Your task to perform on an android device: Open Youtube and go to the subscriptions tab Image 0: 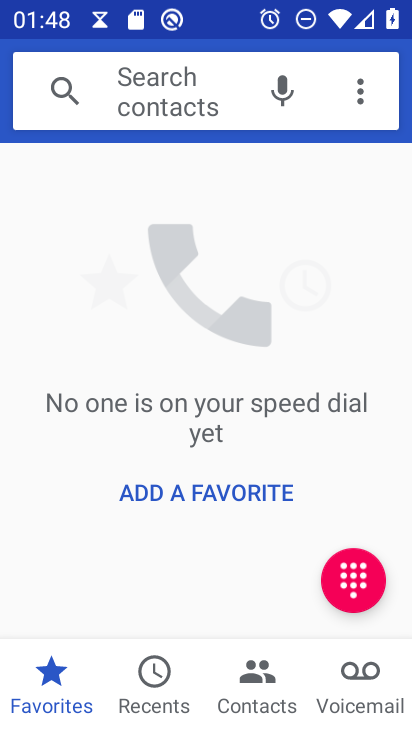
Step 0: press home button
Your task to perform on an android device: Open Youtube and go to the subscriptions tab Image 1: 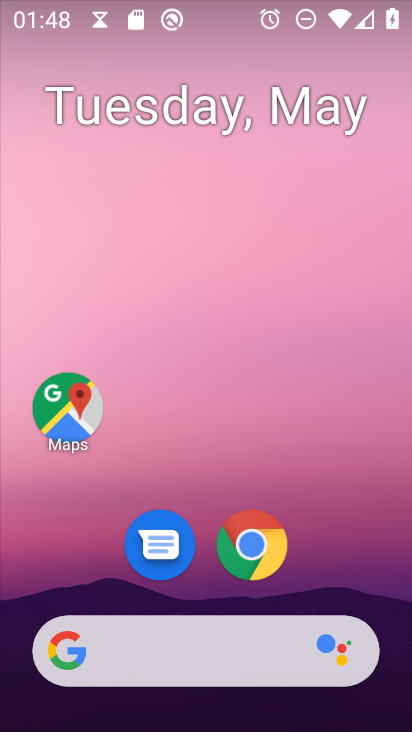
Step 1: drag from (313, 539) to (315, 67)
Your task to perform on an android device: Open Youtube and go to the subscriptions tab Image 2: 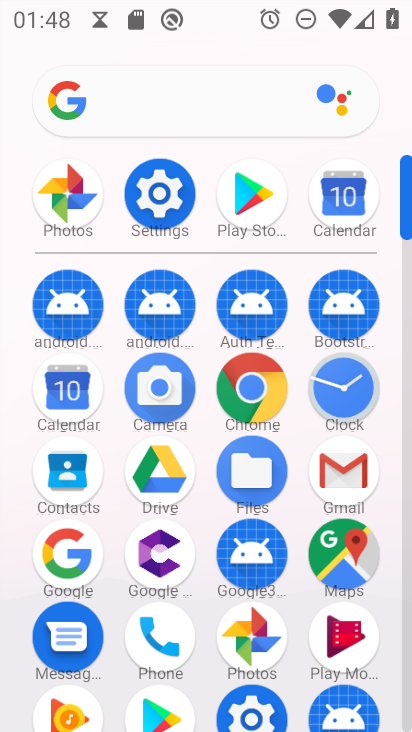
Step 2: drag from (266, 634) to (279, 169)
Your task to perform on an android device: Open Youtube and go to the subscriptions tab Image 3: 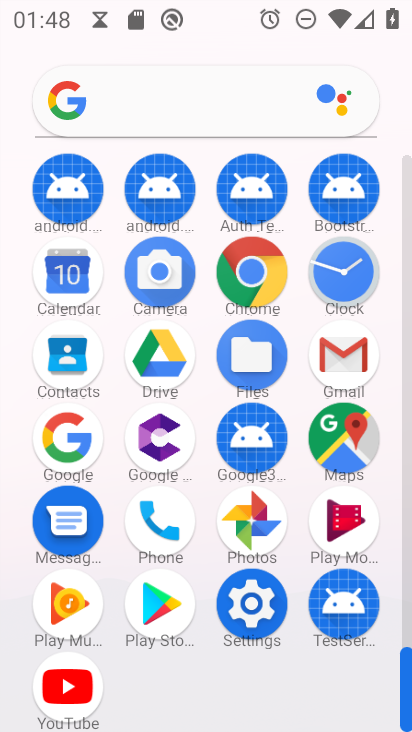
Step 3: click (57, 688)
Your task to perform on an android device: Open Youtube and go to the subscriptions tab Image 4: 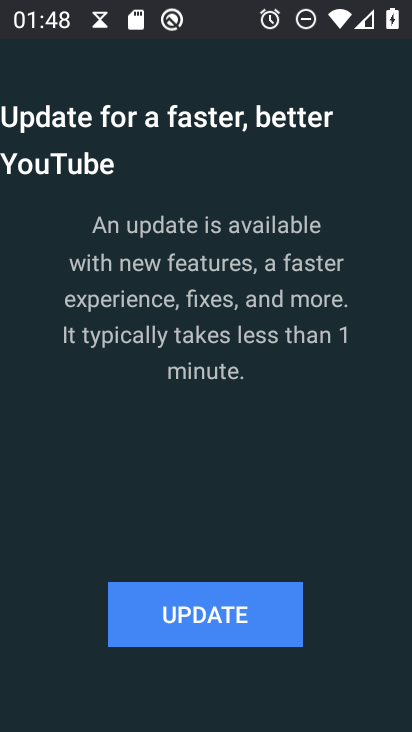
Step 4: click (230, 635)
Your task to perform on an android device: Open Youtube and go to the subscriptions tab Image 5: 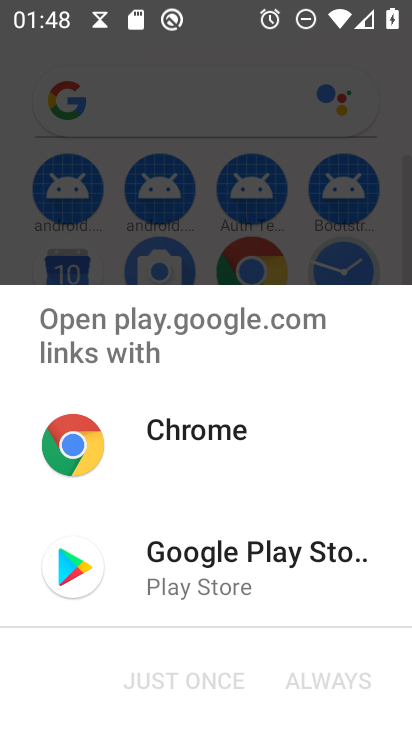
Step 5: click (187, 539)
Your task to perform on an android device: Open Youtube and go to the subscriptions tab Image 6: 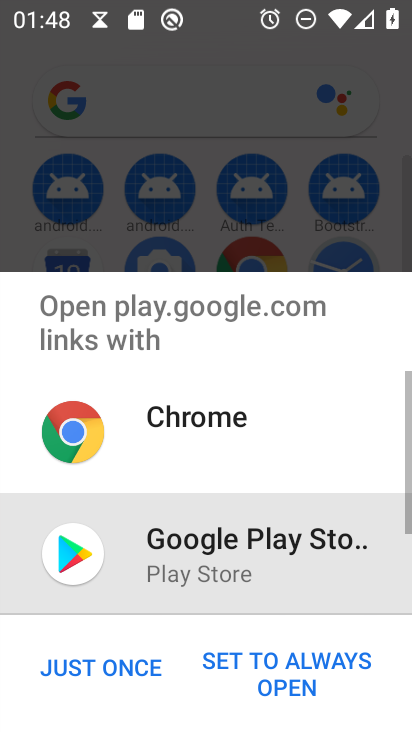
Step 6: click (106, 665)
Your task to perform on an android device: Open Youtube and go to the subscriptions tab Image 7: 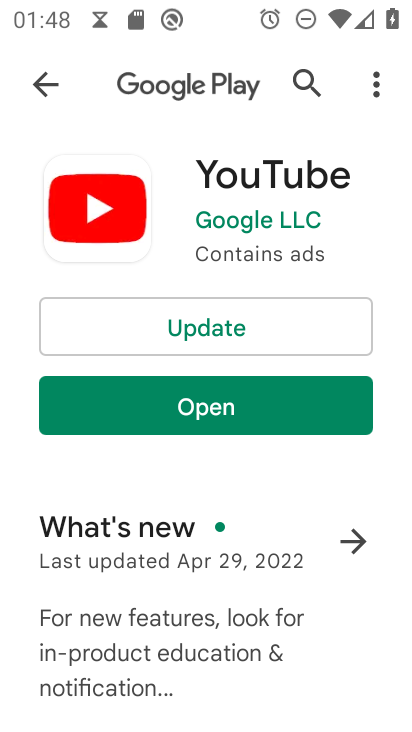
Step 7: click (215, 318)
Your task to perform on an android device: Open Youtube and go to the subscriptions tab Image 8: 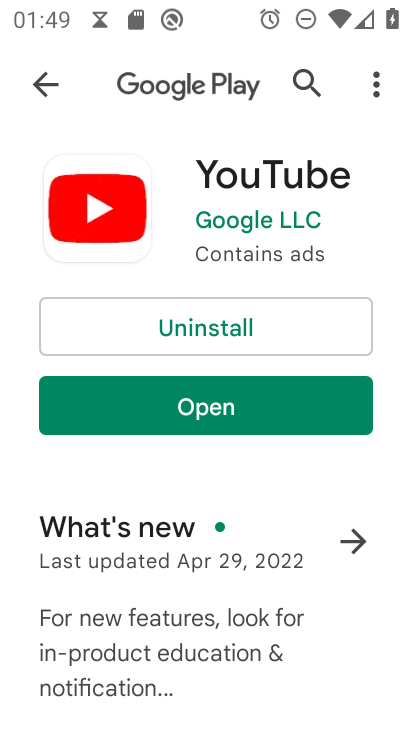
Step 8: click (138, 419)
Your task to perform on an android device: Open Youtube and go to the subscriptions tab Image 9: 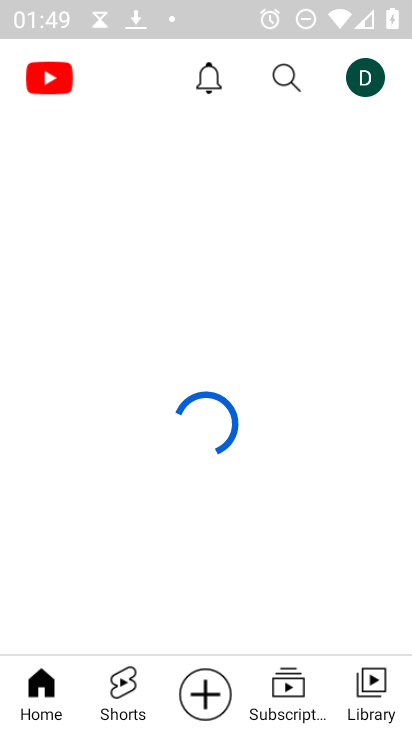
Step 9: click (289, 701)
Your task to perform on an android device: Open Youtube and go to the subscriptions tab Image 10: 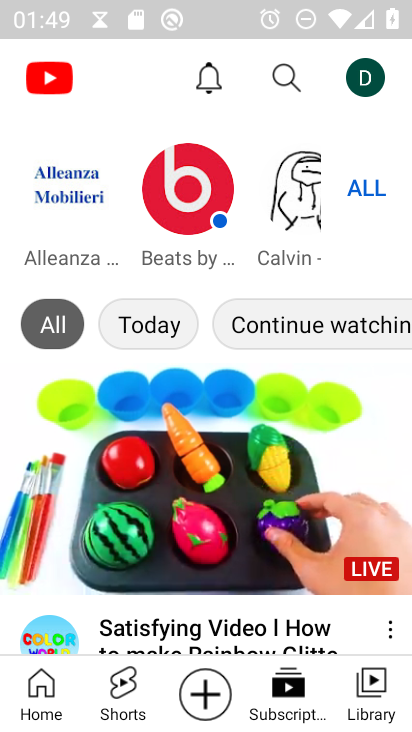
Step 10: task complete